Your task to perform on an android device: View the shopping cart on ebay.com. Search for "duracell triple a" on ebay.com, select the first entry, add it to the cart, then select checkout. Image 0: 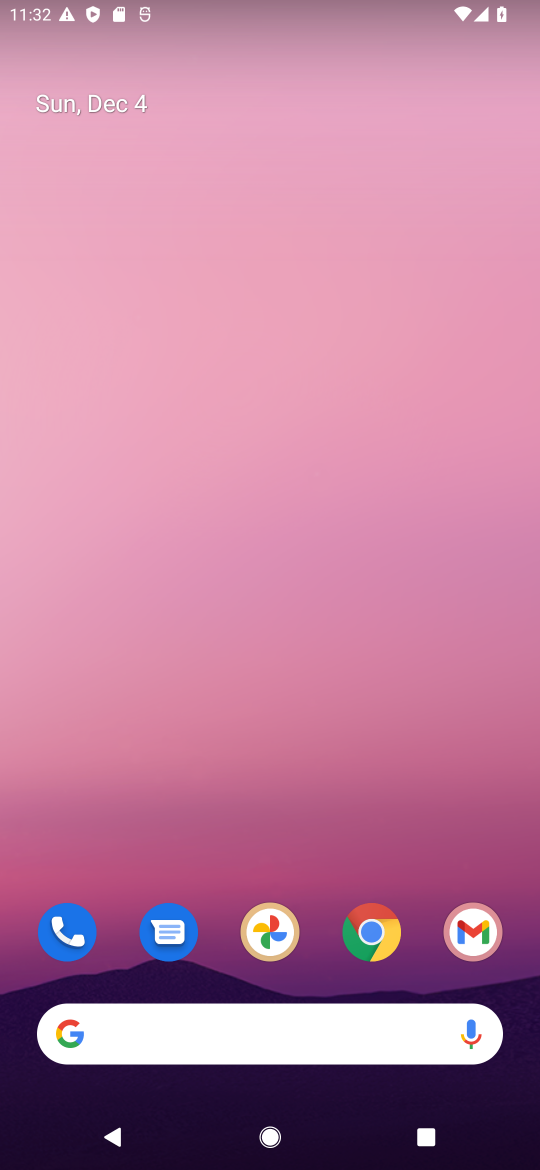
Step 0: task complete